Your task to perform on an android device: change the clock style Image 0: 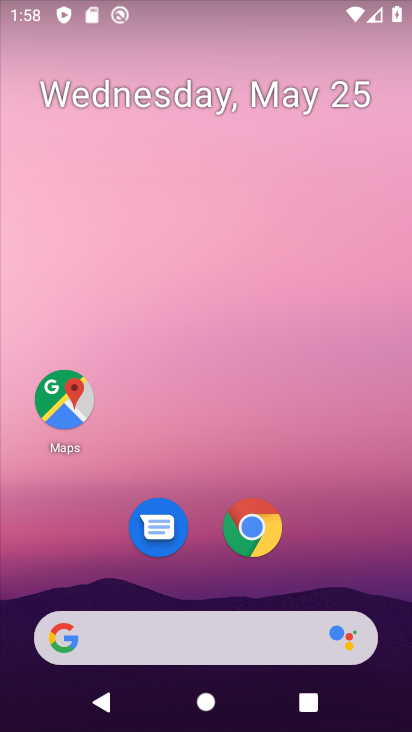
Step 0: drag from (193, 461) to (293, 37)
Your task to perform on an android device: change the clock style Image 1: 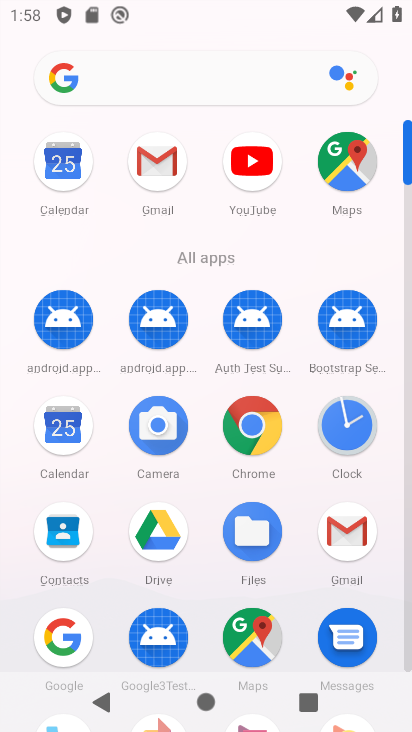
Step 1: click (341, 436)
Your task to perform on an android device: change the clock style Image 2: 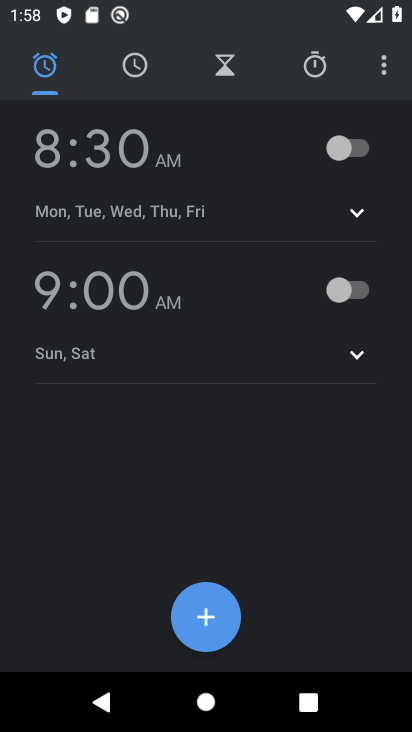
Step 2: click (386, 57)
Your task to perform on an android device: change the clock style Image 3: 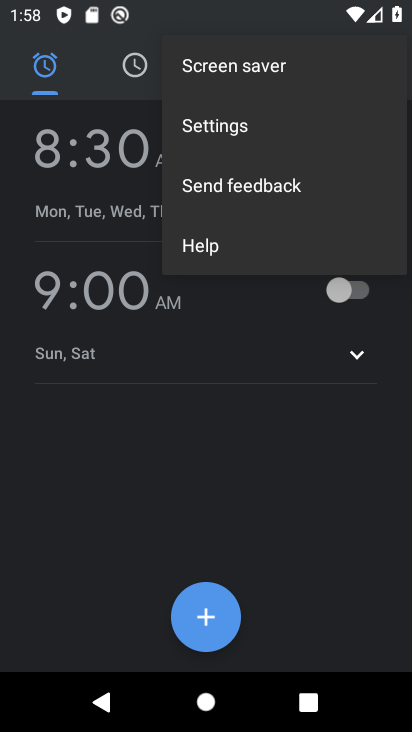
Step 3: click (219, 141)
Your task to perform on an android device: change the clock style Image 4: 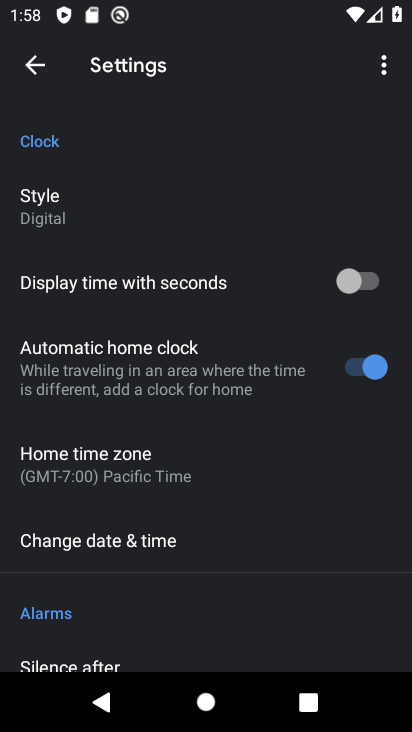
Step 4: task complete